Your task to perform on an android device: open app "TextNow: Call + Text Unlimited" Image 0: 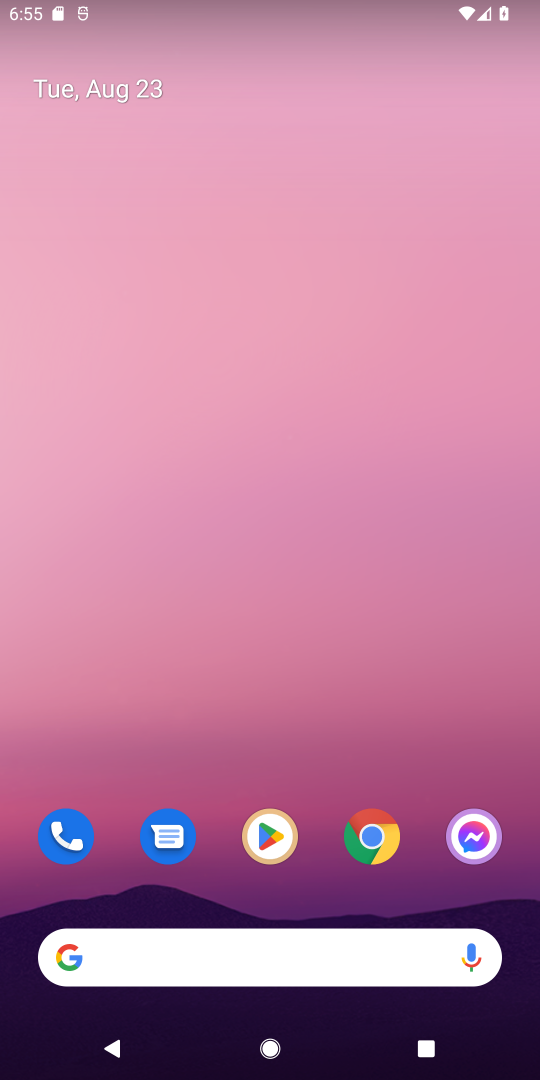
Step 0: click (264, 844)
Your task to perform on an android device: open app "TextNow: Call + Text Unlimited" Image 1: 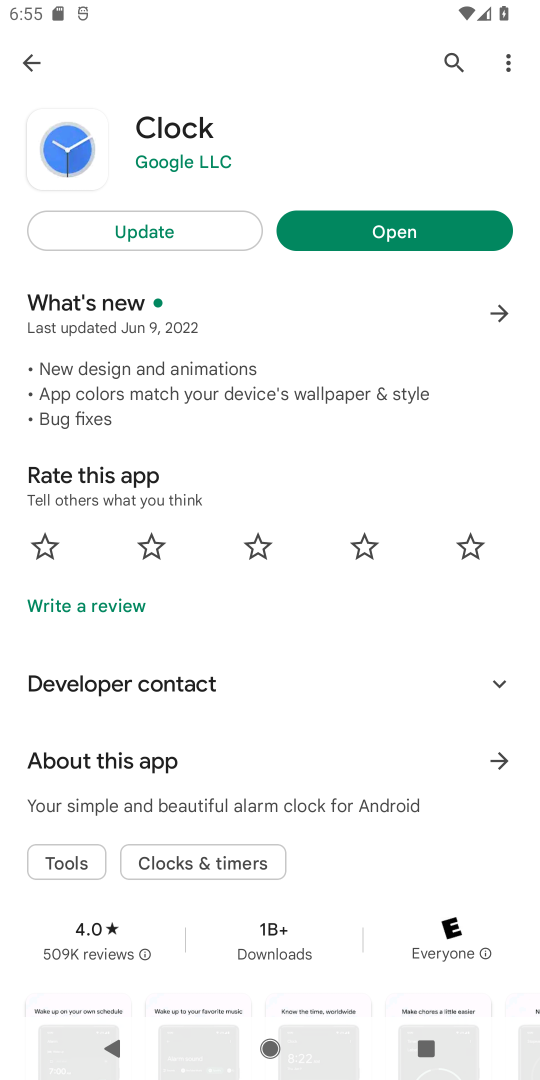
Step 1: click (445, 58)
Your task to perform on an android device: open app "TextNow: Call + Text Unlimited" Image 2: 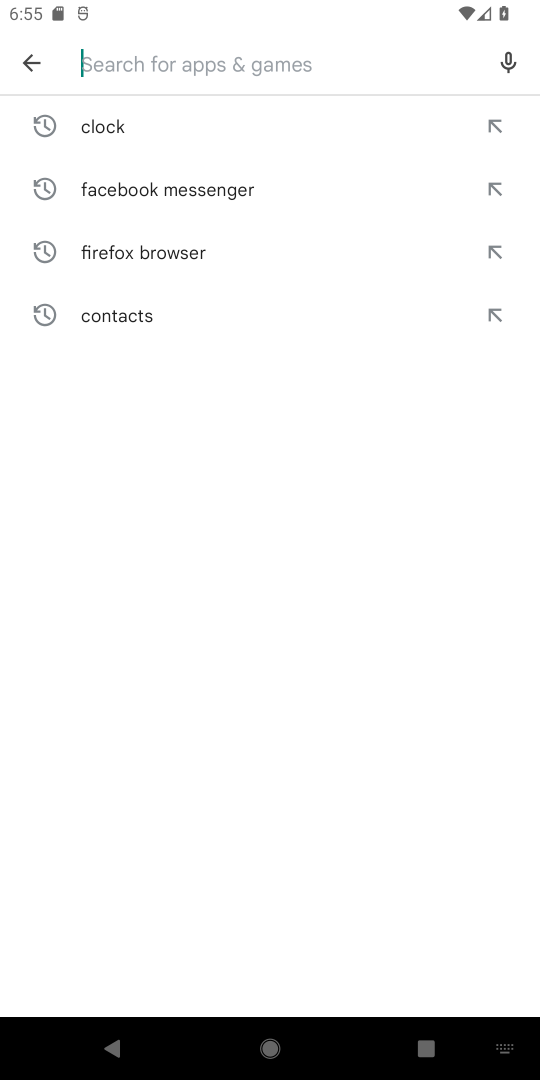
Step 2: type "TextNow: Call + Text Unlimited"
Your task to perform on an android device: open app "TextNow: Call + Text Unlimited" Image 3: 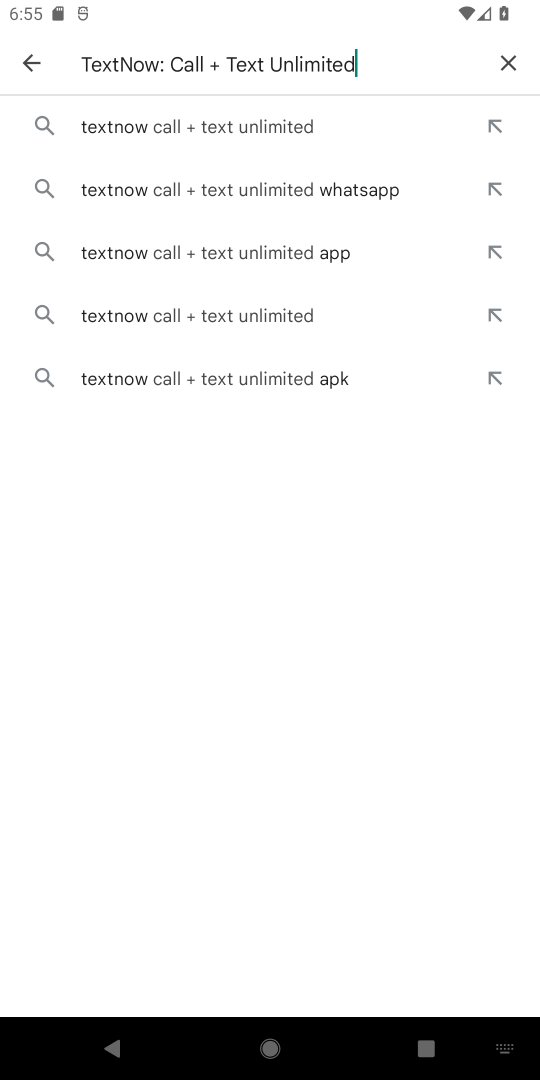
Step 3: click (128, 138)
Your task to perform on an android device: open app "TextNow: Call + Text Unlimited" Image 4: 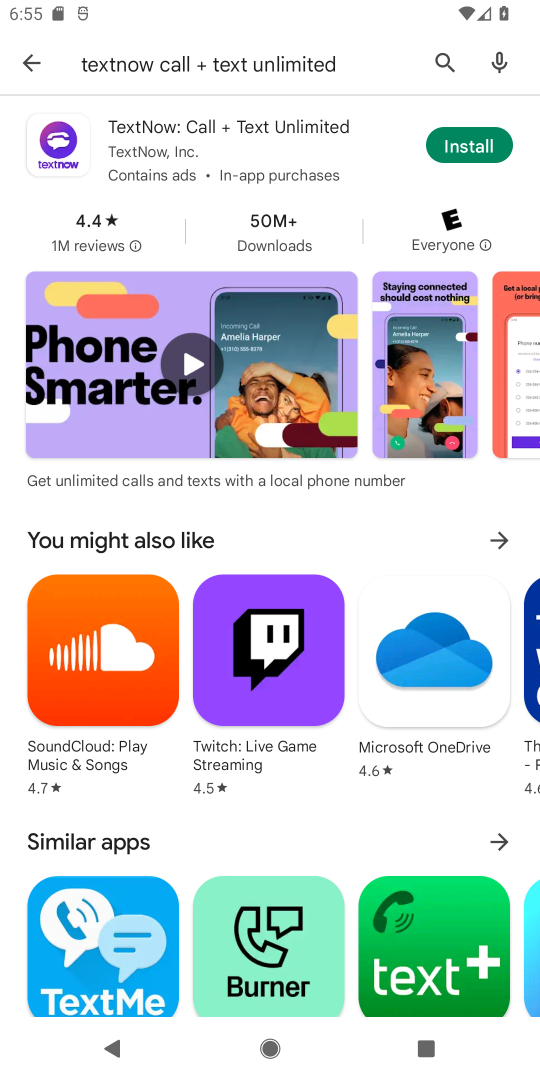
Step 4: task complete